Your task to perform on an android device: change notification settings in the gmail app Image 0: 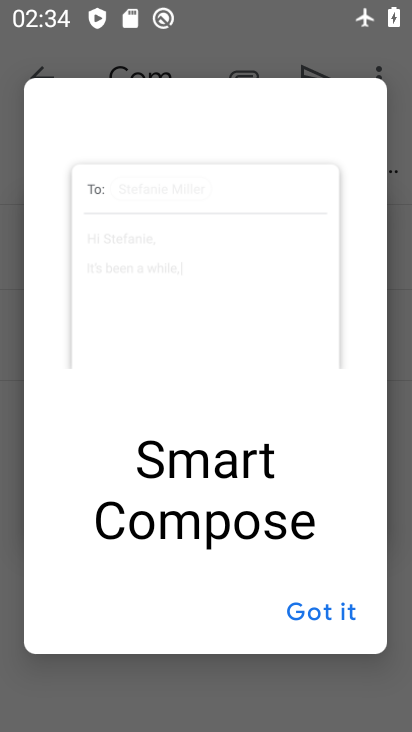
Step 0: press home button
Your task to perform on an android device: change notification settings in the gmail app Image 1: 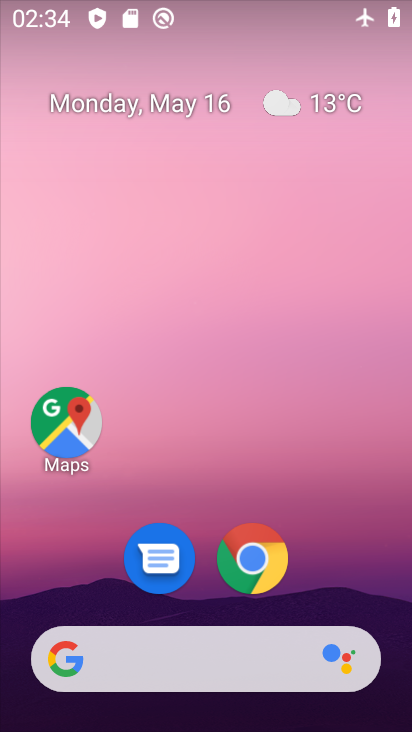
Step 1: drag from (234, 627) to (160, 13)
Your task to perform on an android device: change notification settings in the gmail app Image 2: 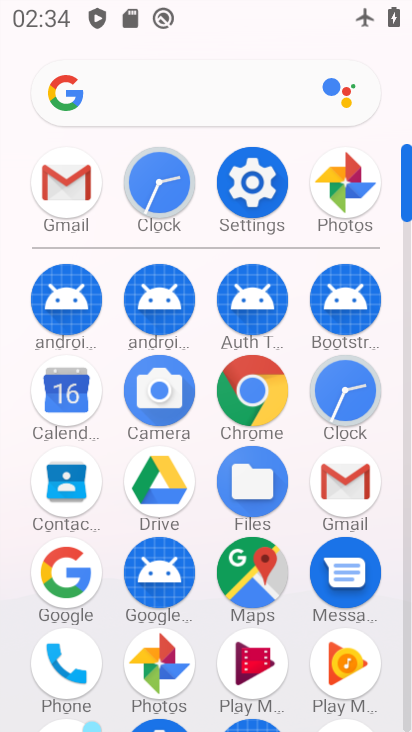
Step 2: click (336, 502)
Your task to perform on an android device: change notification settings in the gmail app Image 3: 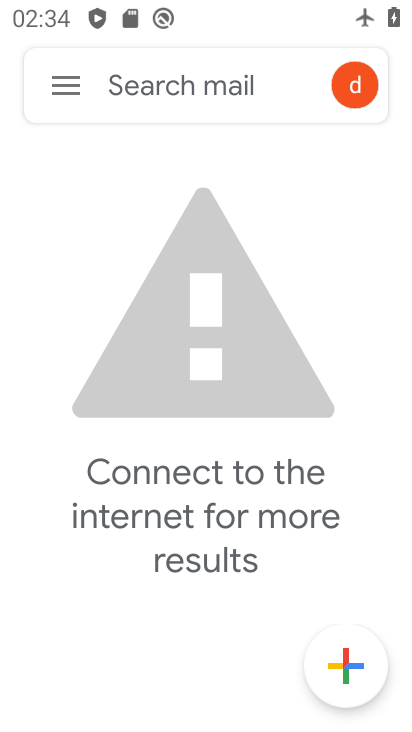
Step 3: click (54, 79)
Your task to perform on an android device: change notification settings in the gmail app Image 4: 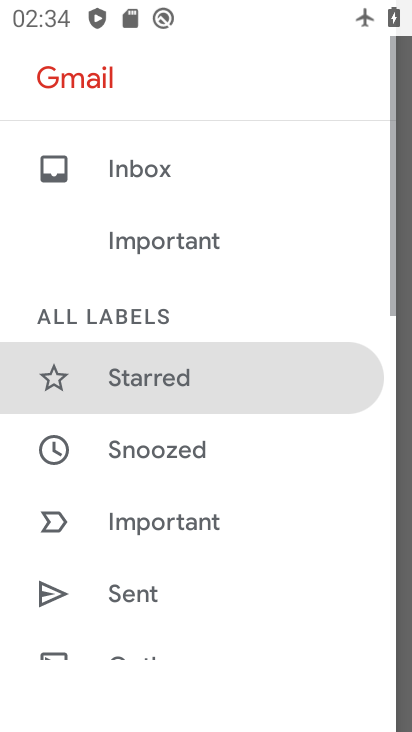
Step 4: drag from (144, 568) to (89, 79)
Your task to perform on an android device: change notification settings in the gmail app Image 5: 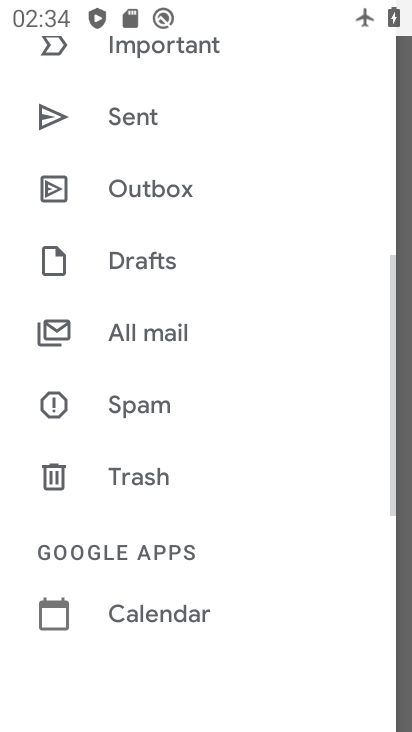
Step 5: drag from (183, 605) to (161, 191)
Your task to perform on an android device: change notification settings in the gmail app Image 6: 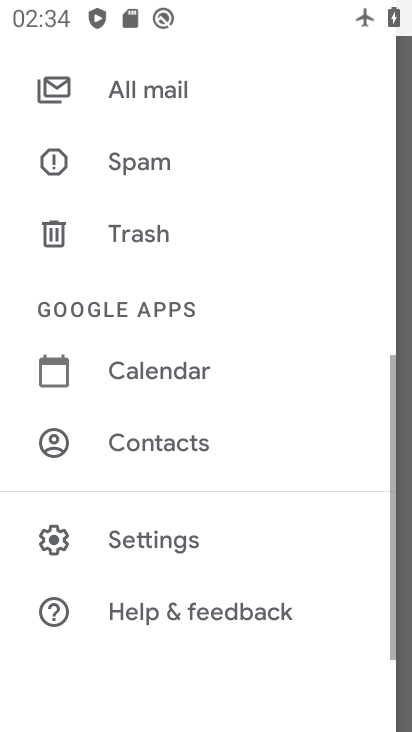
Step 6: click (140, 535)
Your task to perform on an android device: change notification settings in the gmail app Image 7: 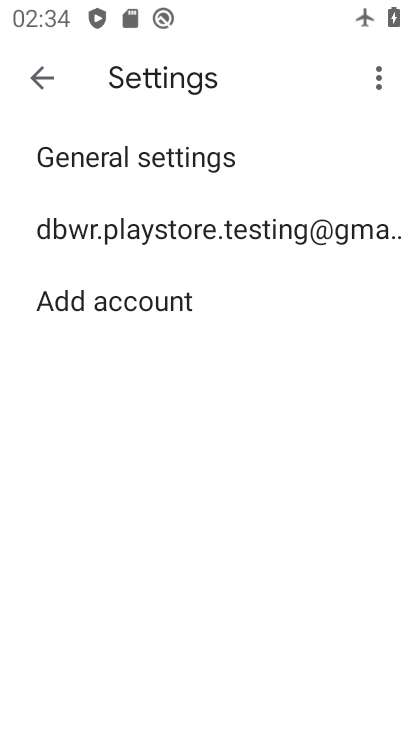
Step 7: click (118, 162)
Your task to perform on an android device: change notification settings in the gmail app Image 8: 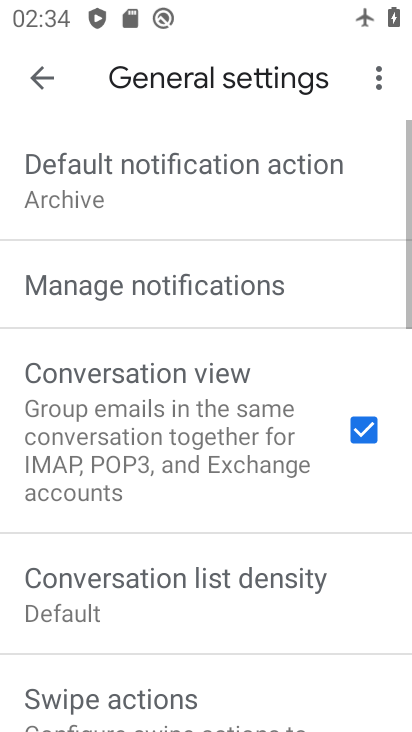
Step 8: click (138, 294)
Your task to perform on an android device: change notification settings in the gmail app Image 9: 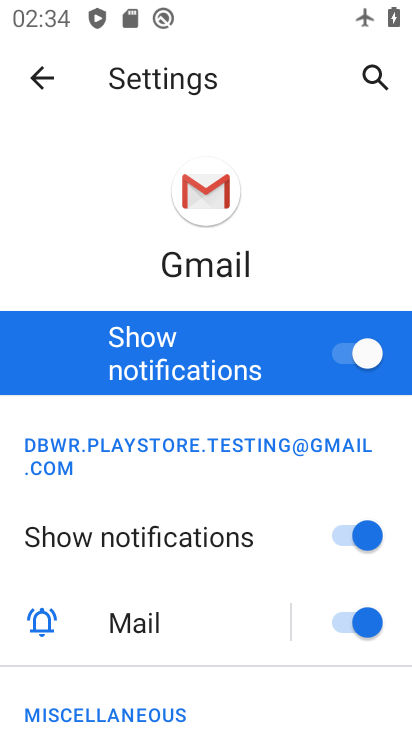
Step 9: click (328, 353)
Your task to perform on an android device: change notification settings in the gmail app Image 10: 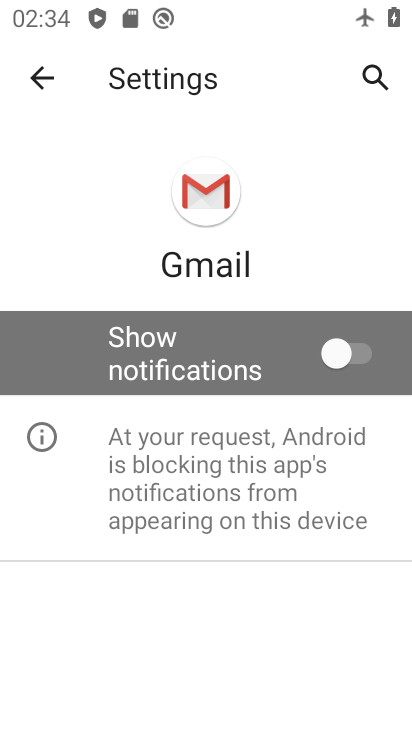
Step 10: task complete